Your task to perform on an android device: change the upload size in google photos Image 0: 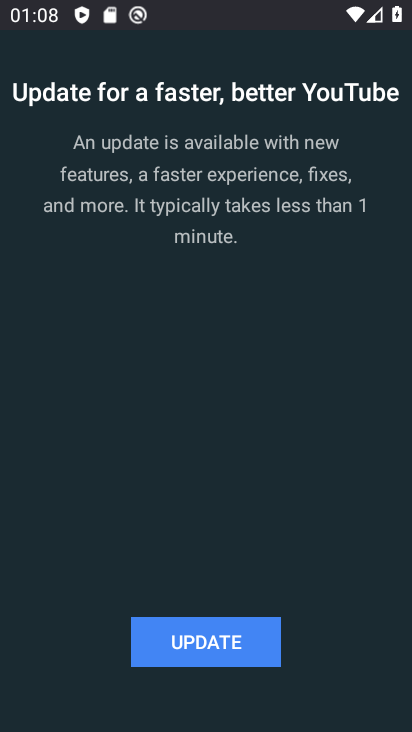
Step 0: press home button
Your task to perform on an android device: change the upload size in google photos Image 1: 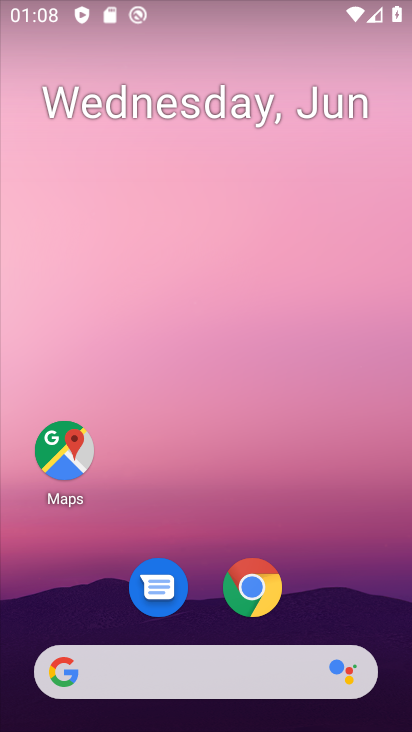
Step 1: drag from (339, 434) to (306, 183)
Your task to perform on an android device: change the upload size in google photos Image 2: 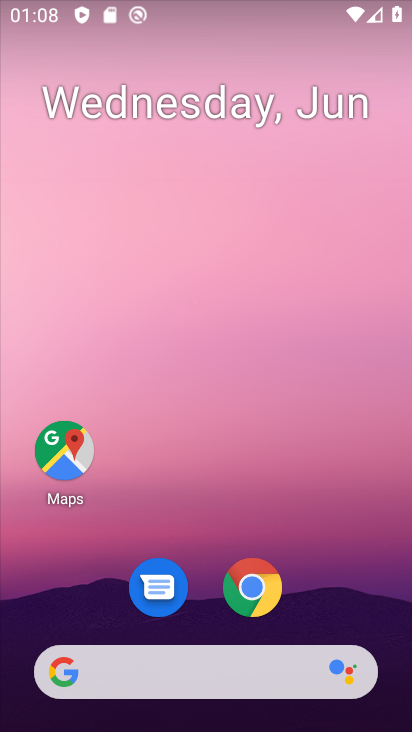
Step 2: click (320, 157)
Your task to perform on an android device: change the upload size in google photos Image 3: 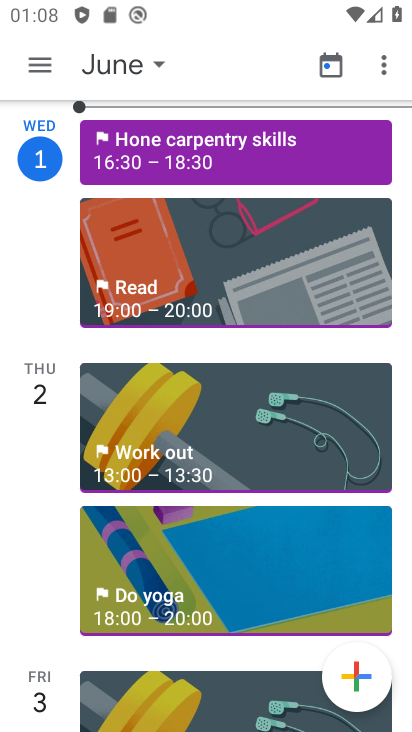
Step 3: press home button
Your task to perform on an android device: change the upload size in google photos Image 4: 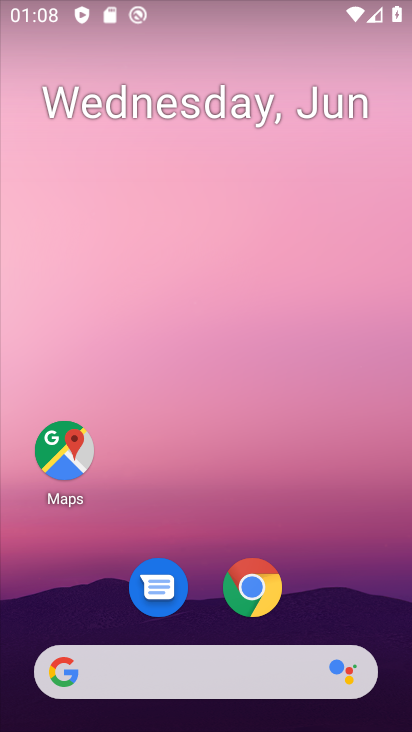
Step 4: drag from (318, 586) to (245, 189)
Your task to perform on an android device: change the upload size in google photos Image 5: 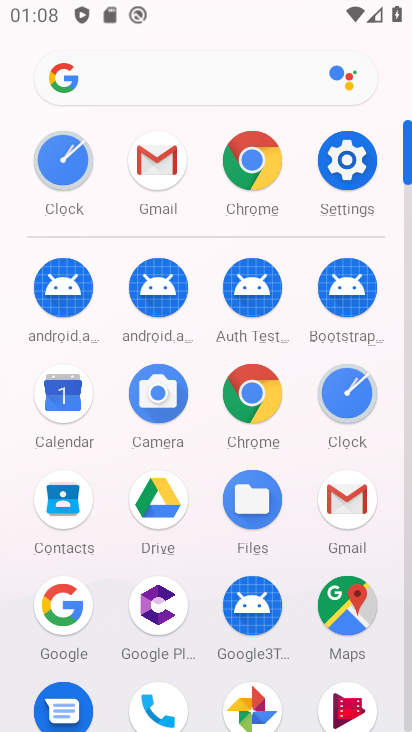
Step 5: click (253, 710)
Your task to perform on an android device: change the upload size in google photos Image 6: 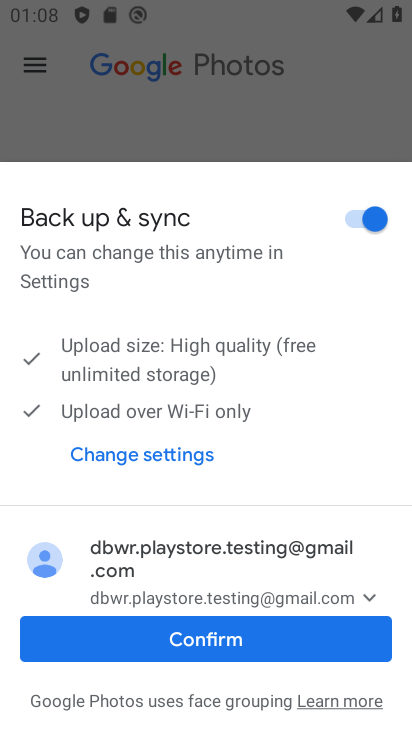
Step 6: click (236, 659)
Your task to perform on an android device: change the upload size in google photos Image 7: 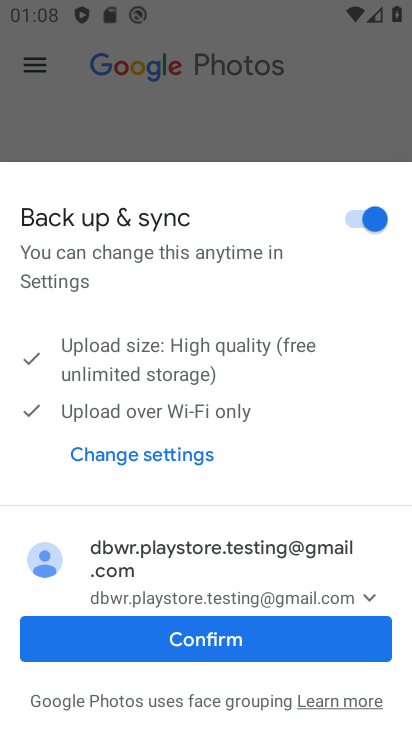
Step 7: click (238, 642)
Your task to perform on an android device: change the upload size in google photos Image 8: 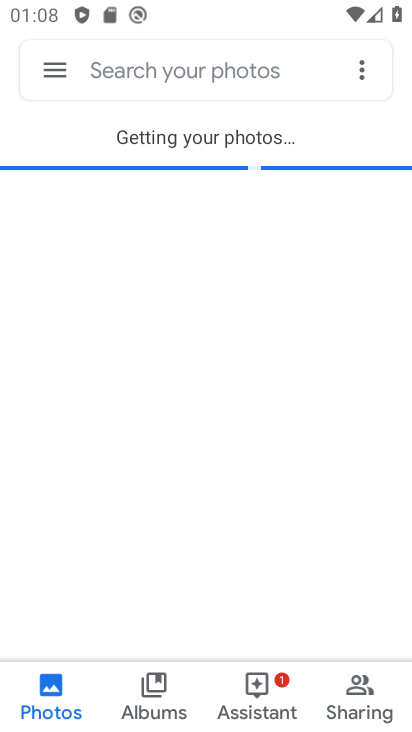
Step 8: click (43, 66)
Your task to perform on an android device: change the upload size in google photos Image 9: 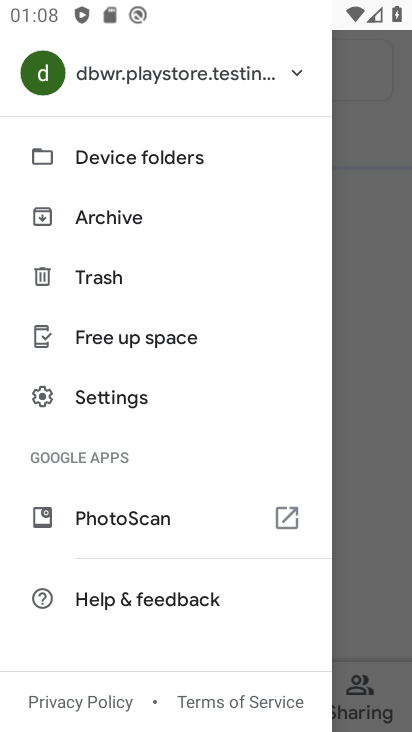
Step 9: click (123, 394)
Your task to perform on an android device: change the upload size in google photos Image 10: 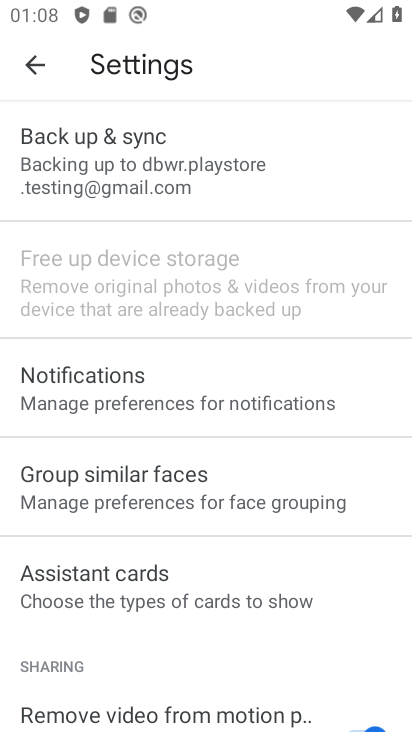
Step 10: click (186, 170)
Your task to perform on an android device: change the upload size in google photos Image 11: 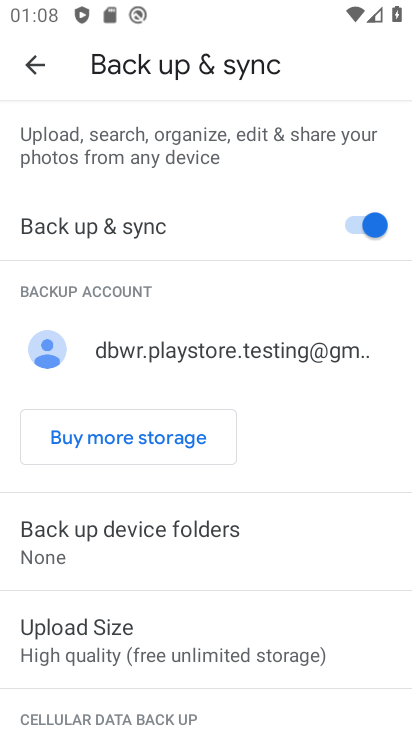
Step 11: click (181, 633)
Your task to perform on an android device: change the upload size in google photos Image 12: 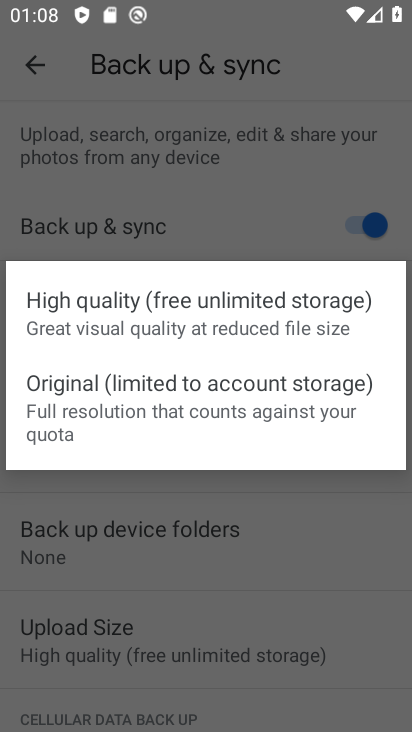
Step 12: click (134, 397)
Your task to perform on an android device: change the upload size in google photos Image 13: 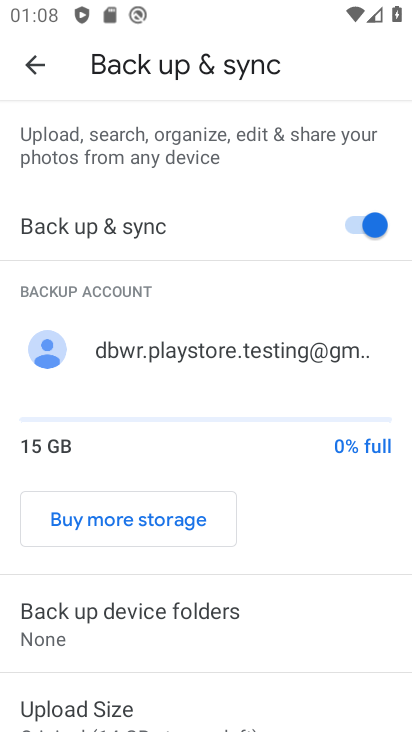
Step 13: task complete